Your task to perform on an android device: set an alarm Image 0: 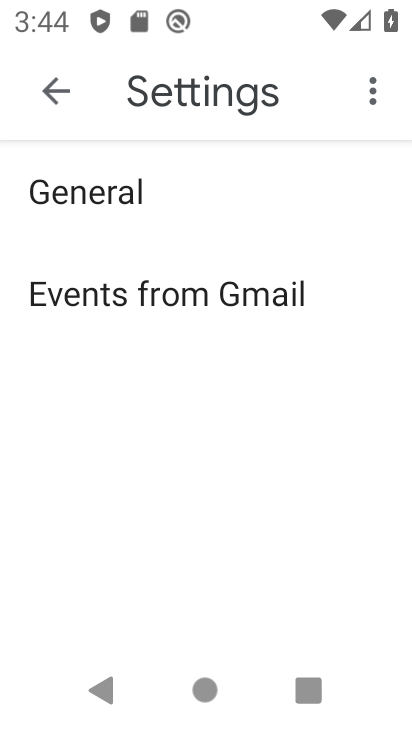
Step 0: press home button
Your task to perform on an android device: set an alarm Image 1: 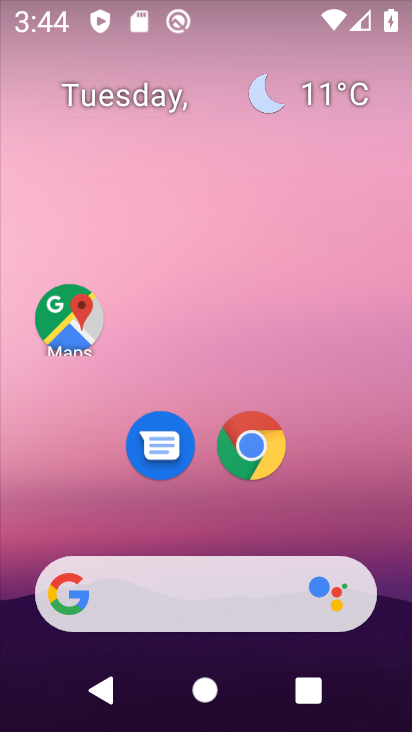
Step 1: drag from (240, 550) to (361, 5)
Your task to perform on an android device: set an alarm Image 2: 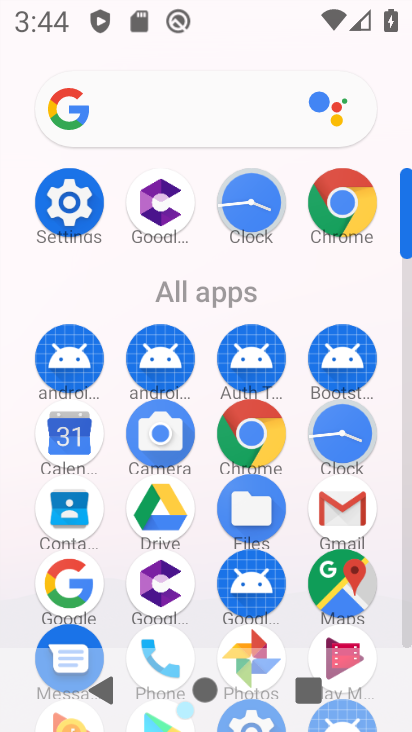
Step 2: click (349, 465)
Your task to perform on an android device: set an alarm Image 3: 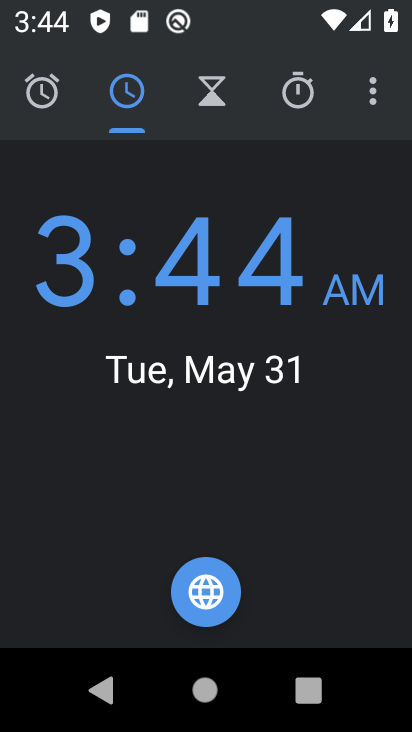
Step 3: click (20, 94)
Your task to perform on an android device: set an alarm Image 4: 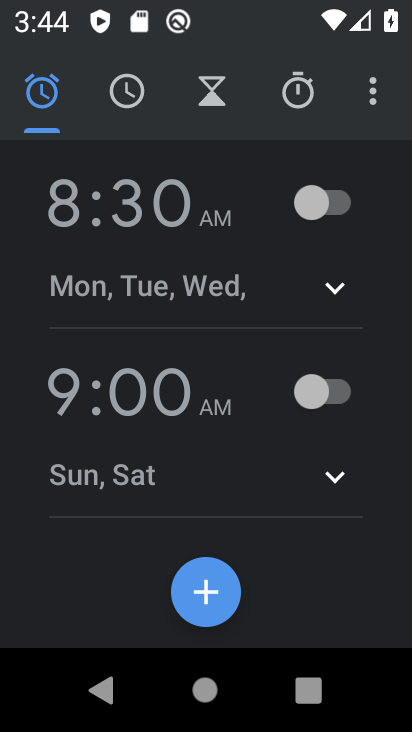
Step 4: click (372, 232)
Your task to perform on an android device: set an alarm Image 5: 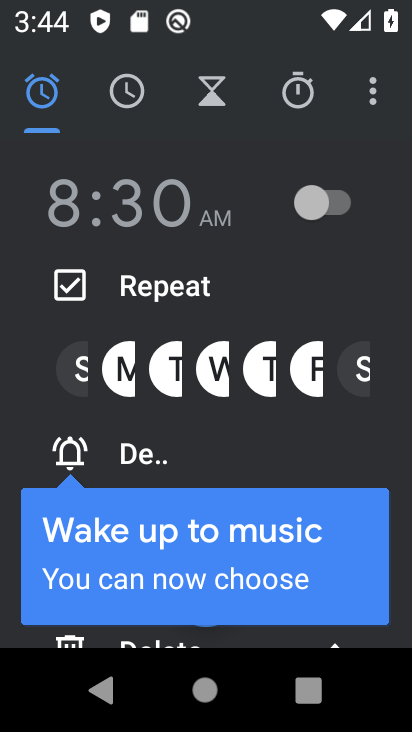
Step 5: click (348, 209)
Your task to perform on an android device: set an alarm Image 6: 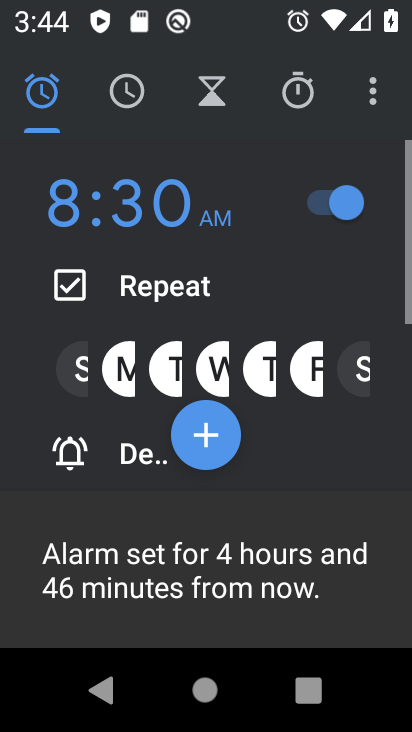
Step 6: task complete